Your task to perform on an android device: Open eBay Image 0: 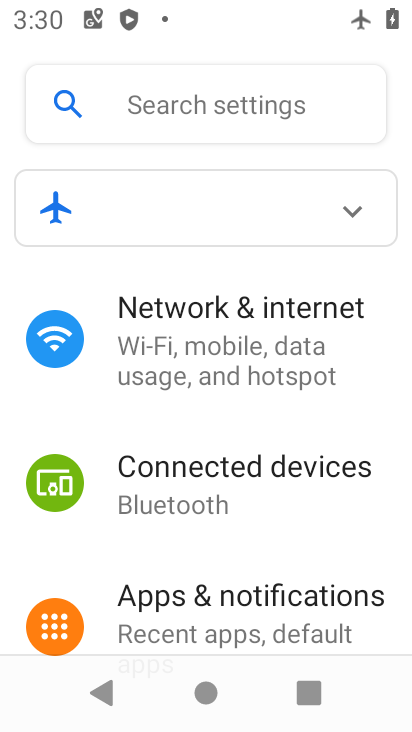
Step 0: press home button
Your task to perform on an android device: Open eBay Image 1: 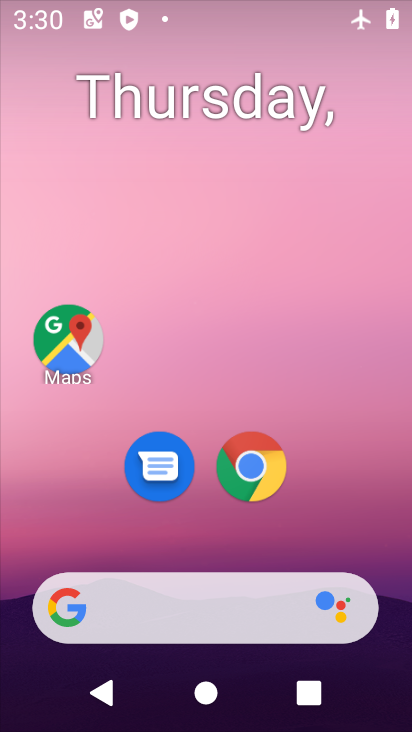
Step 1: drag from (314, 556) to (367, 4)
Your task to perform on an android device: Open eBay Image 2: 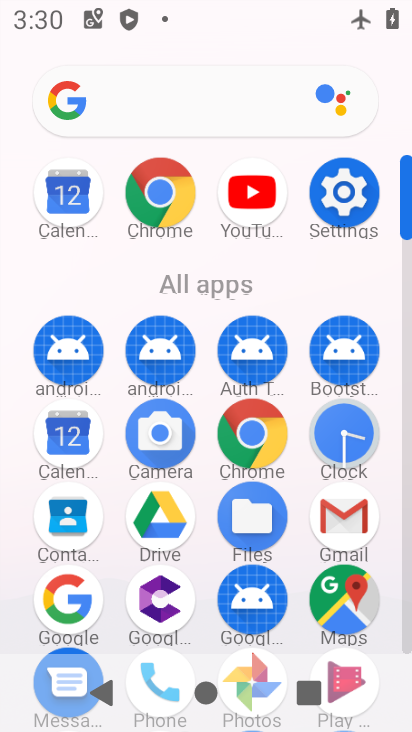
Step 2: click (253, 411)
Your task to perform on an android device: Open eBay Image 3: 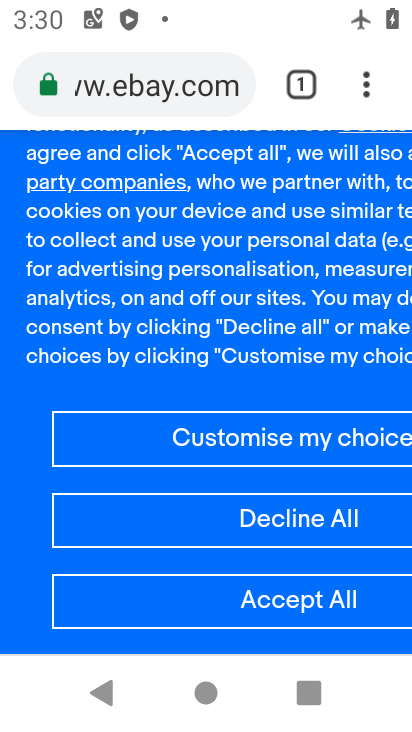
Step 3: click (223, 75)
Your task to perform on an android device: Open eBay Image 4: 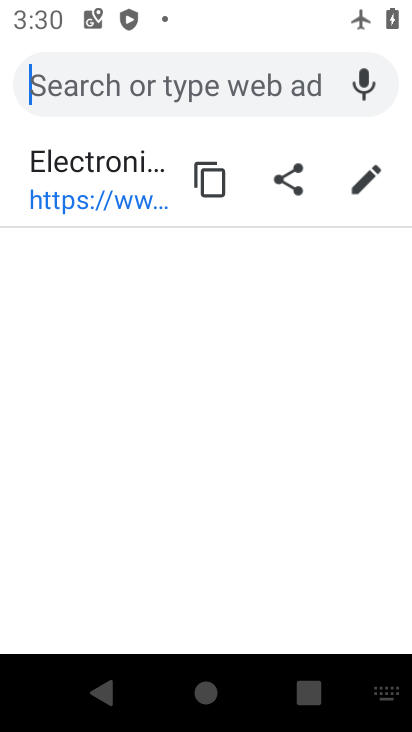
Step 4: type "ebay"
Your task to perform on an android device: Open eBay Image 5: 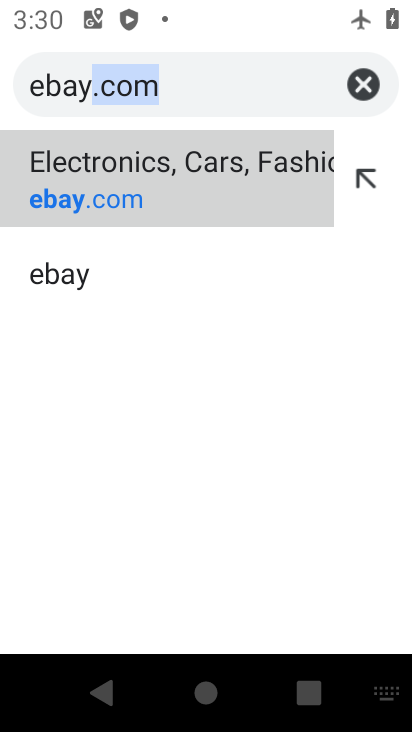
Step 5: click (241, 188)
Your task to perform on an android device: Open eBay Image 6: 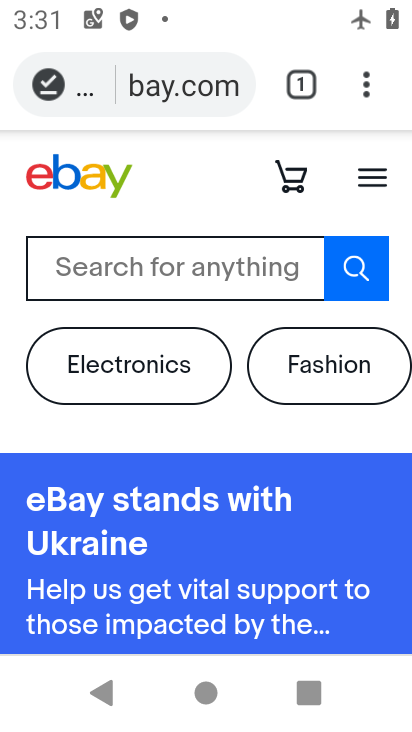
Step 6: task complete